Your task to perform on an android device: change timer sound Image 0: 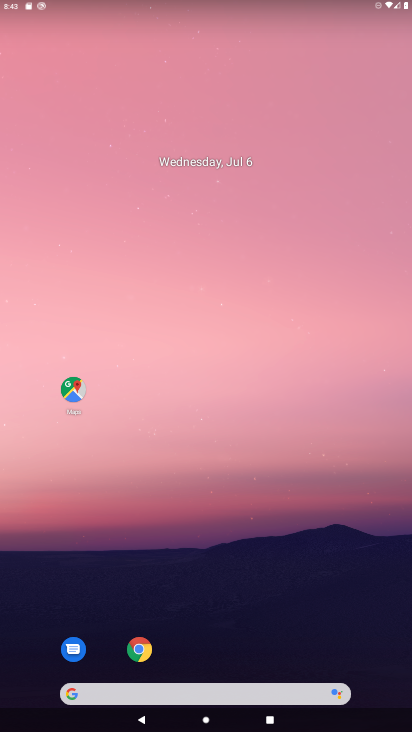
Step 0: drag from (245, 718) to (236, 123)
Your task to perform on an android device: change timer sound Image 1: 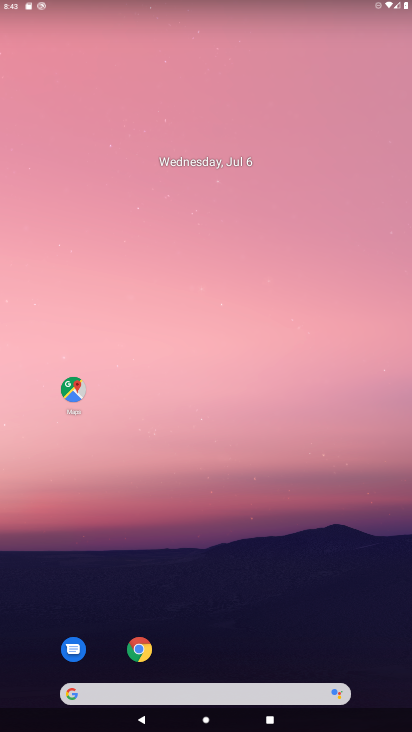
Step 1: click (250, 70)
Your task to perform on an android device: change timer sound Image 2: 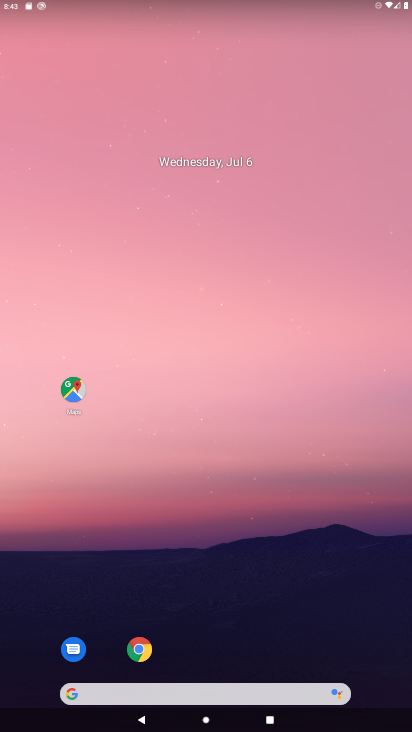
Step 2: drag from (229, 656) to (241, 91)
Your task to perform on an android device: change timer sound Image 3: 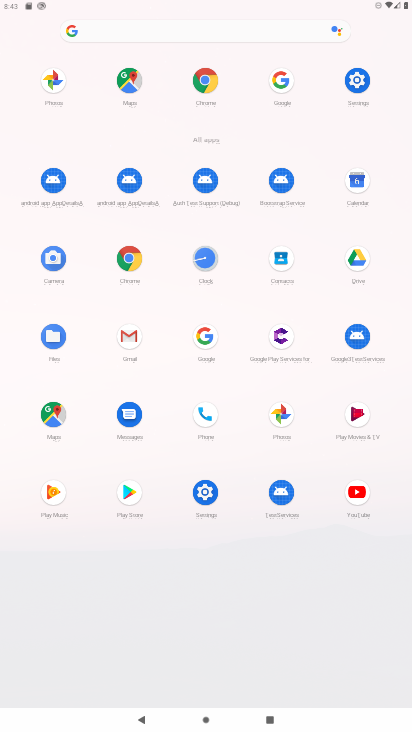
Step 3: drag from (161, 117) to (259, 149)
Your task to perform on an android device: change timer sound Image 4: 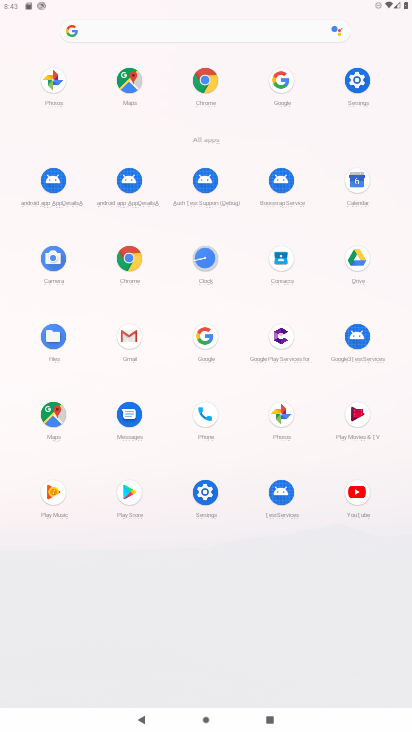
Step 4: click (231, 144)
Your task to perform on an android device: change timer sound Image 5: 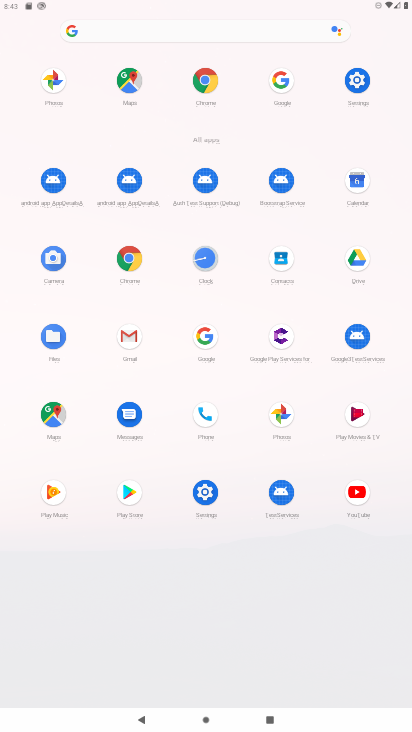
Step 5: click (235, 234)
Your task to perform on an android device: change timer sound Image 6: 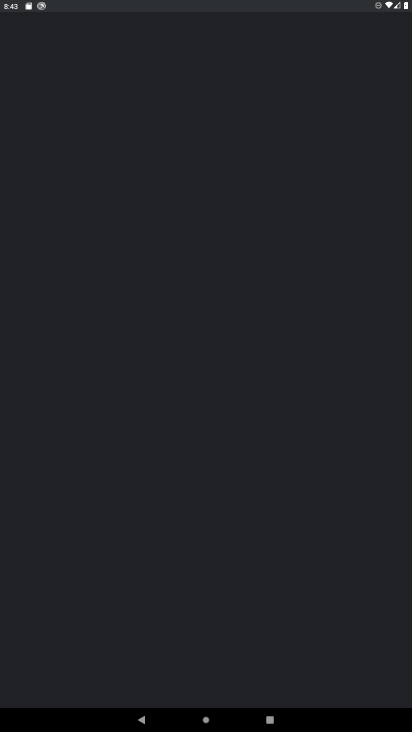
Step 6: press back button
Your task to perform on an android device: change timer sound Image 7: 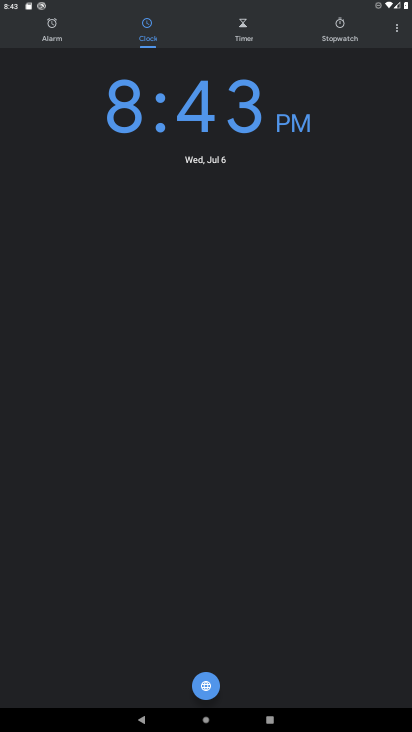
Step 7: press back button
Your task to perform on an android device: change timer sound Image 8: 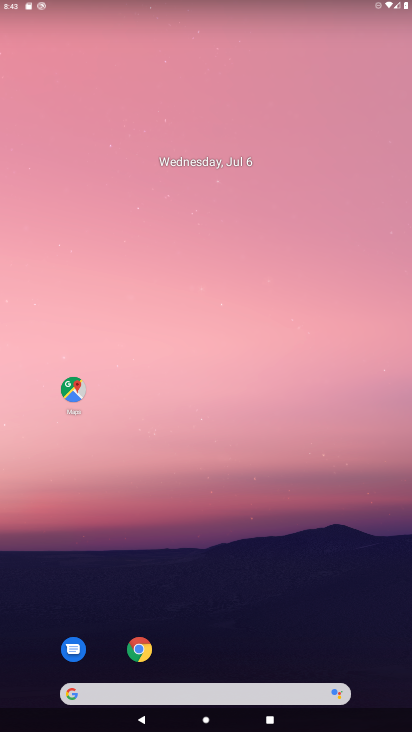
Step 8: drag from (298, 693) to (180, 208)
Your task to perform on an android device: change timer sound Image 9: 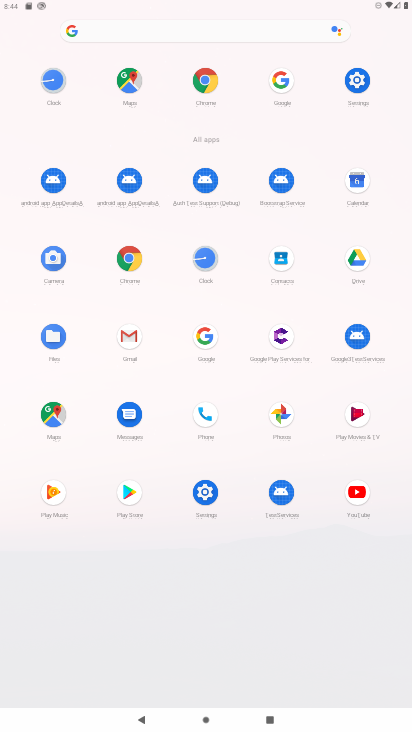
Step 9: click (216, 263)
Your task to perform on an android device: change timer sound Image 10: 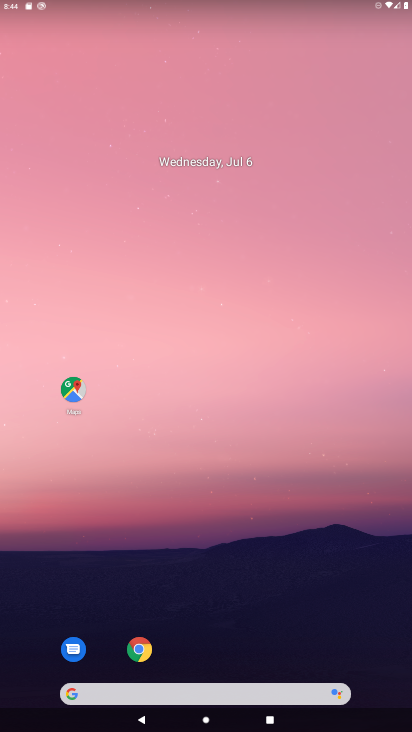
Step 10: click (198, 261)
Your task to perform on an android device: change timer sound Image 11: 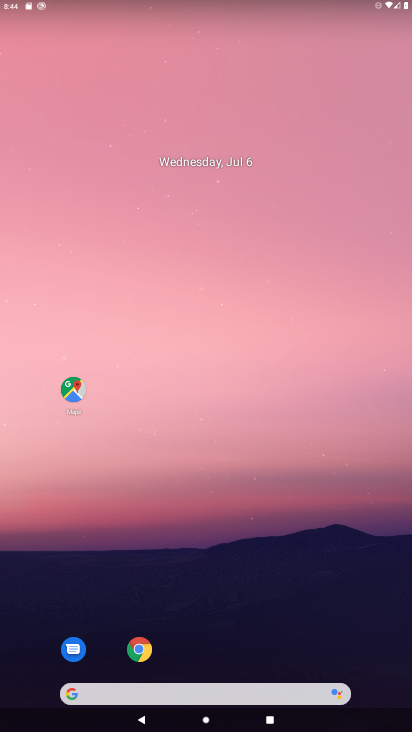
Step 11: drag from (247, 642) to (173, 292)
Your task to perform on an android device: change timer sound Image 12: 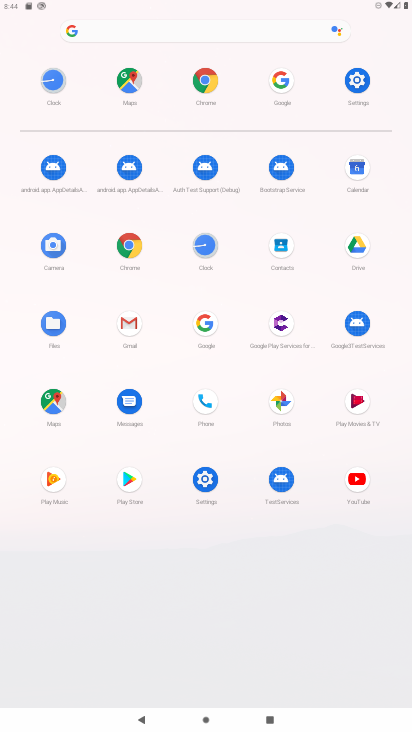
Step 12: drag from (316, 554) to (252, 114)
Your task to perform on an android device: change timer sound Image 13: 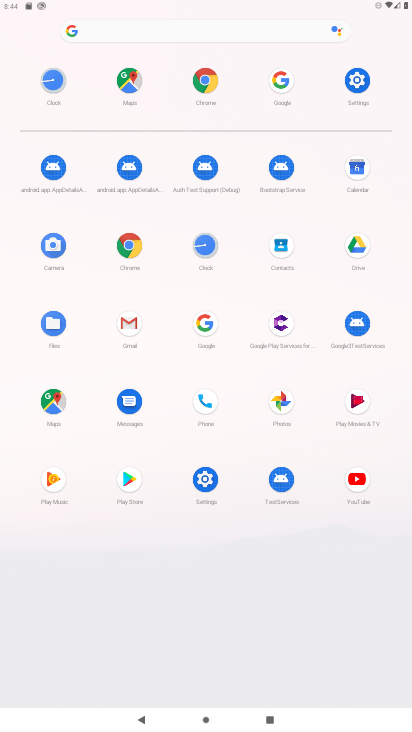
Step 13: click (216, 241)
Your task to perform on an android device: change timer sound Image 14: 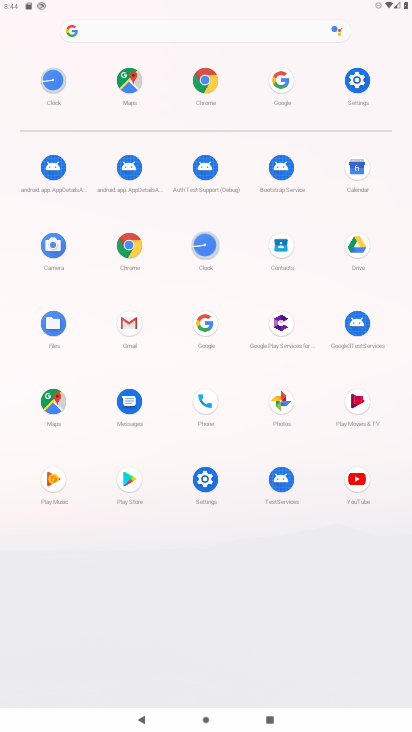
Step 14: click (211, 239)
Your task to perform on an android device: change timer sound Image 15: 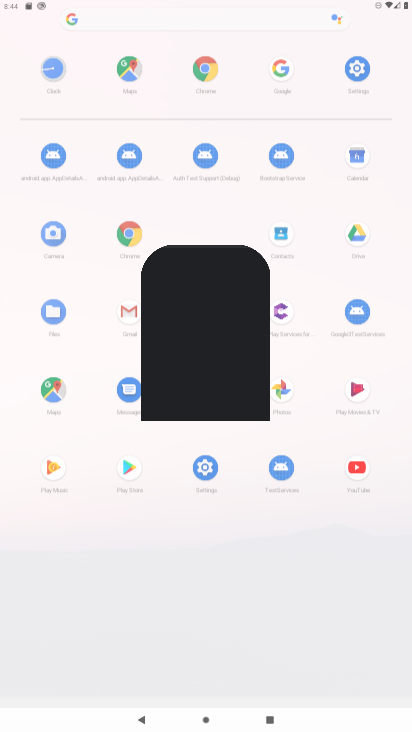
Step 15: click (211, 236)
Your task to perform on an android device: change timer sound Image 16: 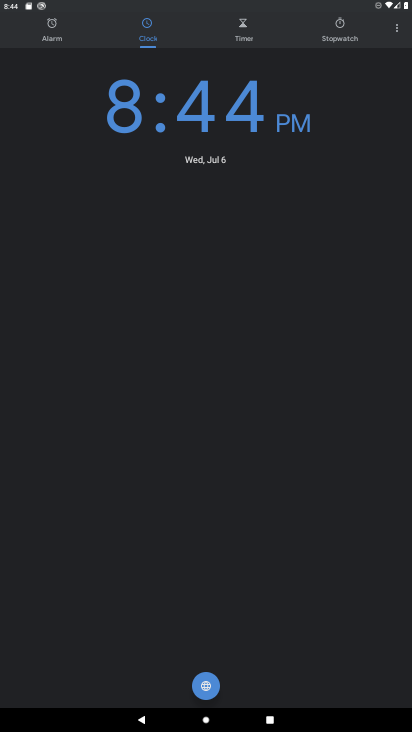
Step 16: click (197, 229)
Your task to perform on an android device: change timer sound Image 17: 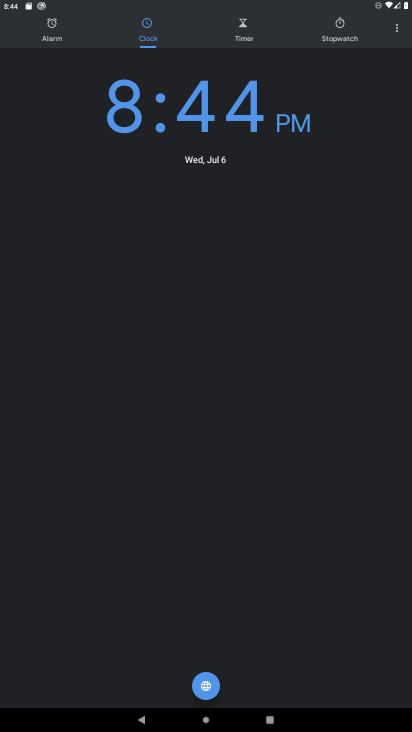
Step 17: click (247, 34)
Your task to perform on an android device: change timer sound Image 18: 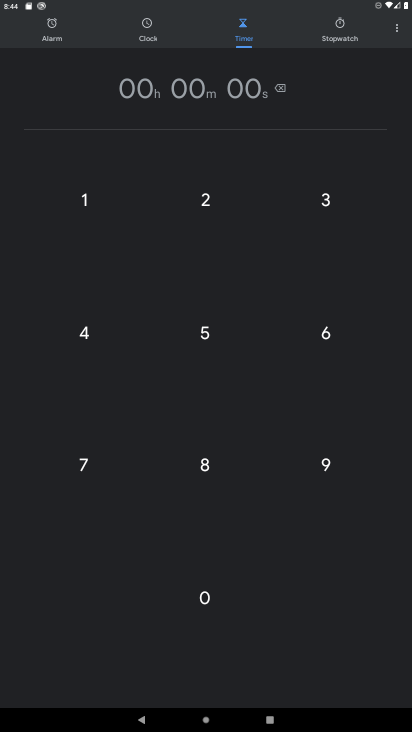
Step 18: click (204, 339)
Your task to perform on an android device: change timer sound Image 19: 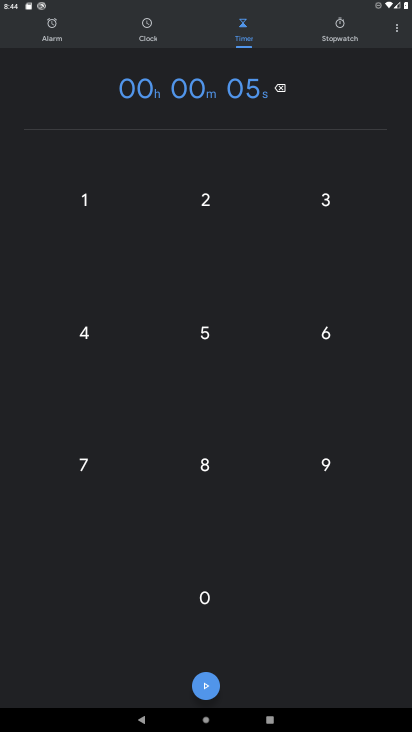
Step 19: click (205, 195)
Your task to perform on an android device: change timer sound Image 20: 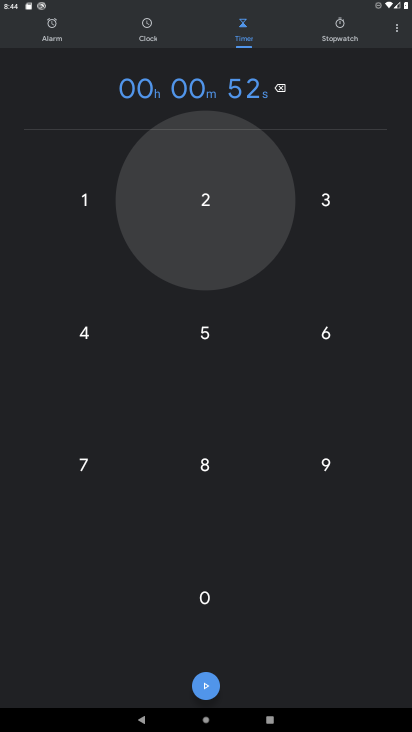
Step 20: click (225, 205)
Your task to perform on an android device: change timer sound Image 21: 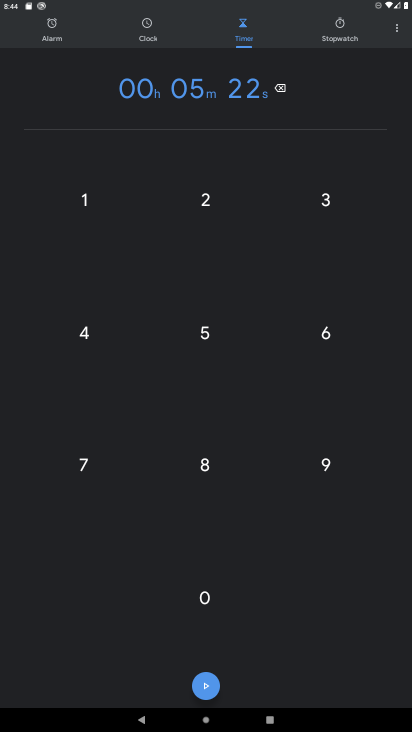
Step 21: click (205, 674)
Your task to perform on an android device: change timer sound Image 22: 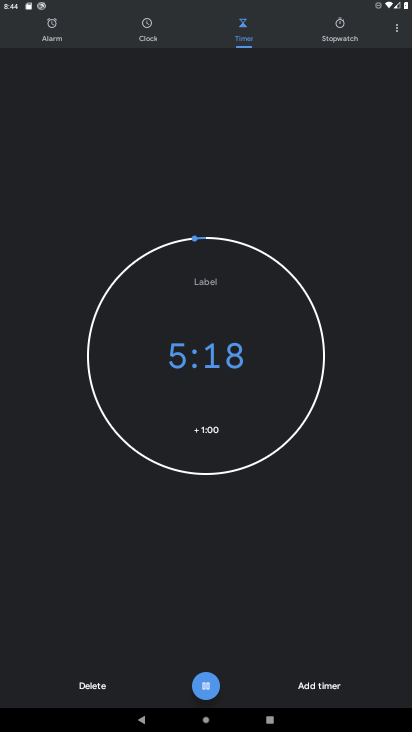
Step 22: click (323, 677)
Your task to perform on an android device: change timer sound Image 23: 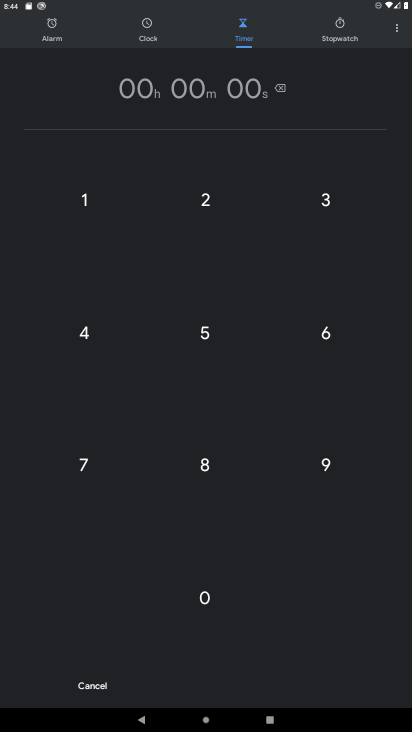
Step 23: click (329, 689)
Your task to perform on an android device: change timer sound Image 24: 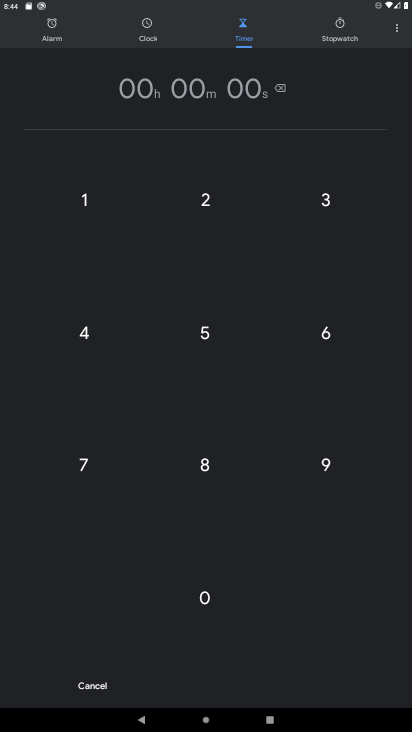
Step 24: task complete